Your task to perform on an android device: make emails show in primary in the gmail app Image 0: 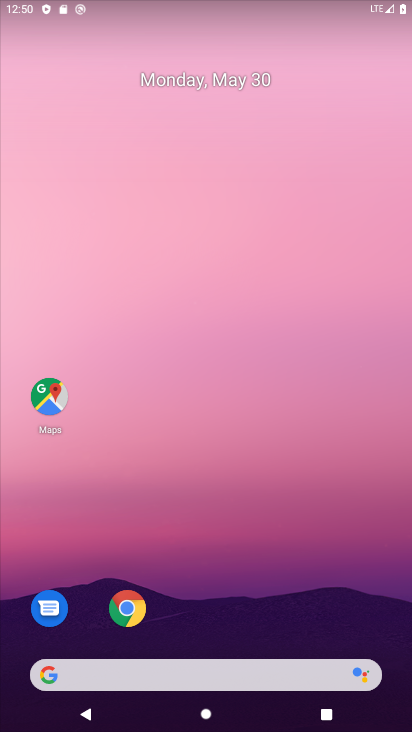
Step 0: drag from (214, 620) to (253, 75)
Your task to perform on an android device: make emails show in primary in the gmail app Image 1: 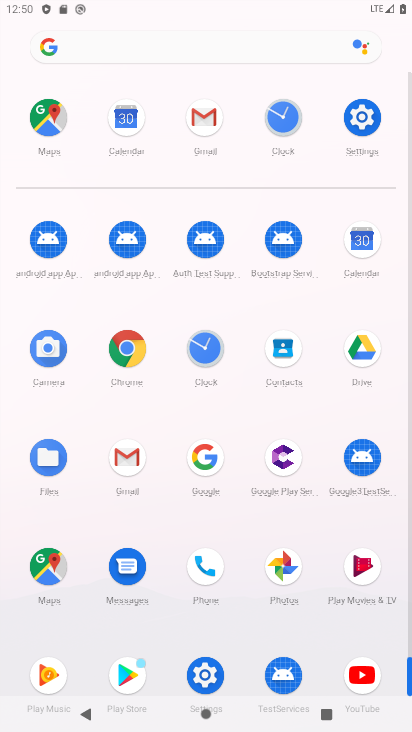
Step 1: click (135, 470)
Your task to perform on an android device: make emails show in primary in the gmail app Image 2: 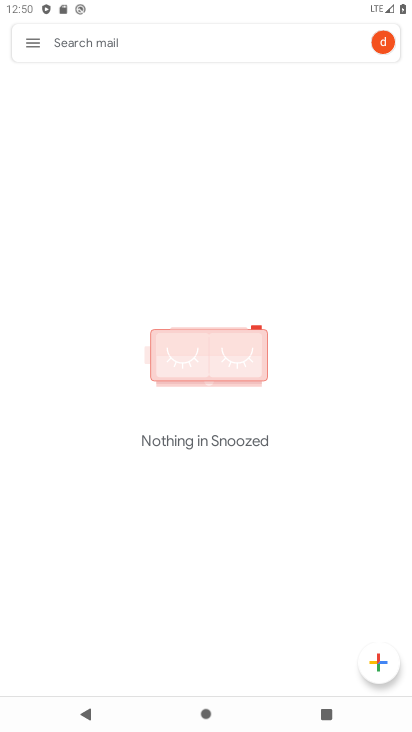
Step 2: click (33, 44)
Your task to perform on an android device: make emails show in primary in the gmail app Image 3: 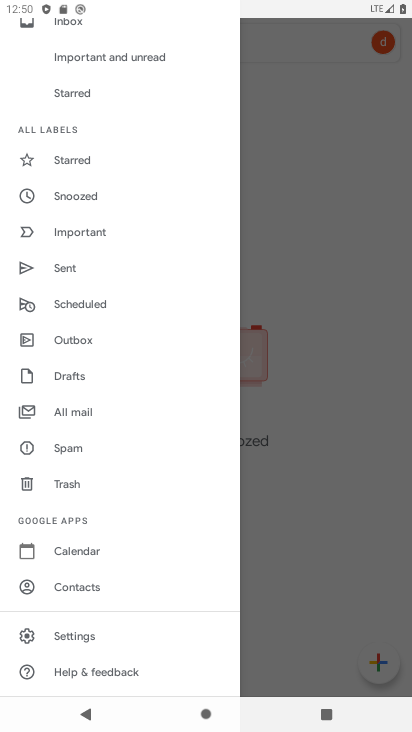
Step 3: click (63, 639)
Your task to perform on an android device: make emails show in primary in the gmail app Image 4: 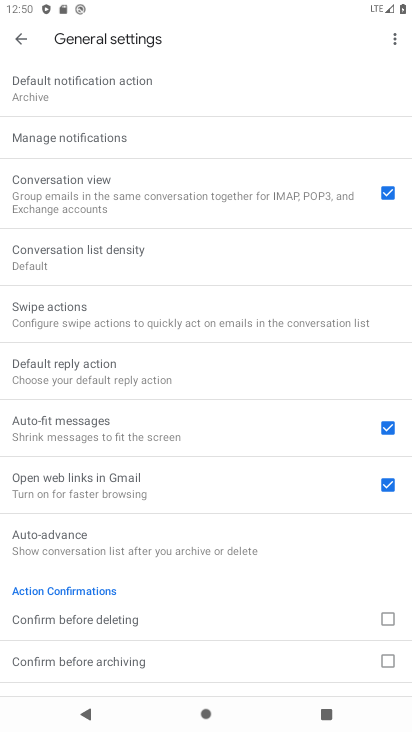
Step 4: click (17, 51)
Your task to perform on an android device: make emails show in primary in the gmail app Image 5: 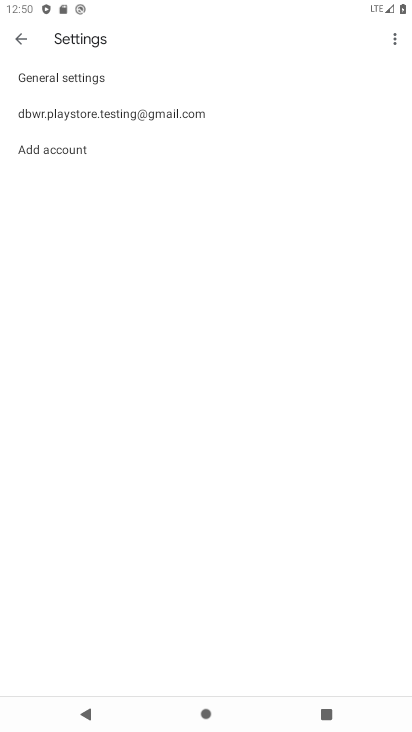
Step 5: click (90, 122)
Your task to perform on an android device: make emails show in primary in the gmail app Image 6: 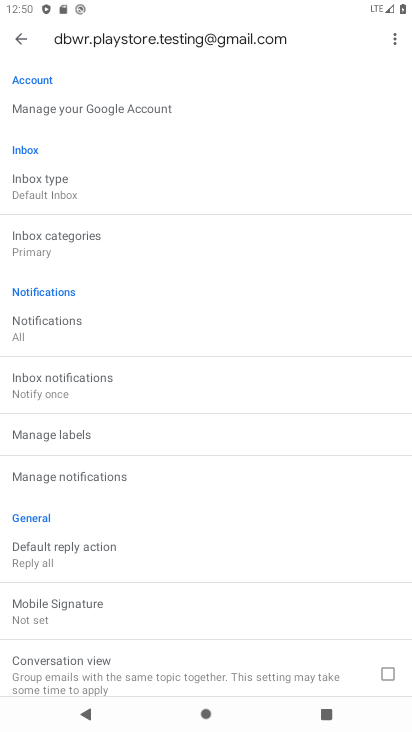
Step 6: task complete